Your task to perform on an android device: Open Reddit.com Image 0: 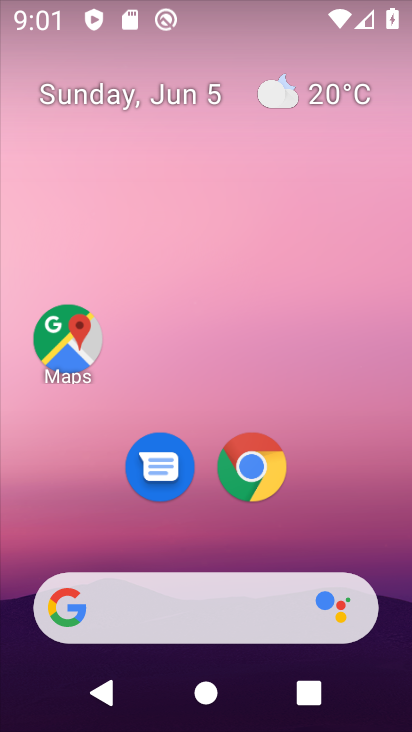
Step 0: click (251, 462)
Your task to perform on an android device: Open Reddit.com Image 1: 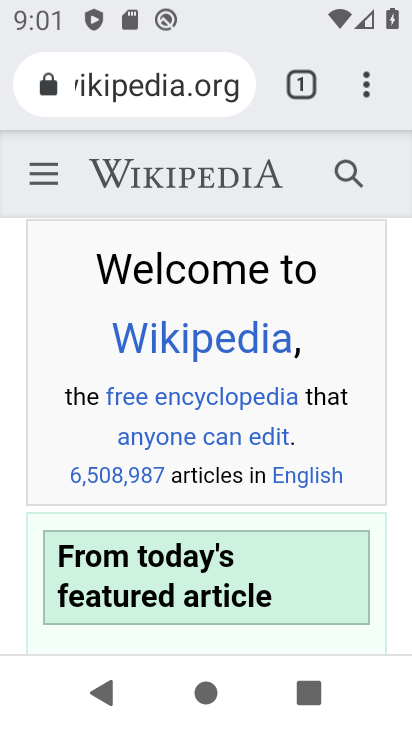
Step 1: click (367, 89)
Your task to perform on an android device: Open Reddit.com Image 2: 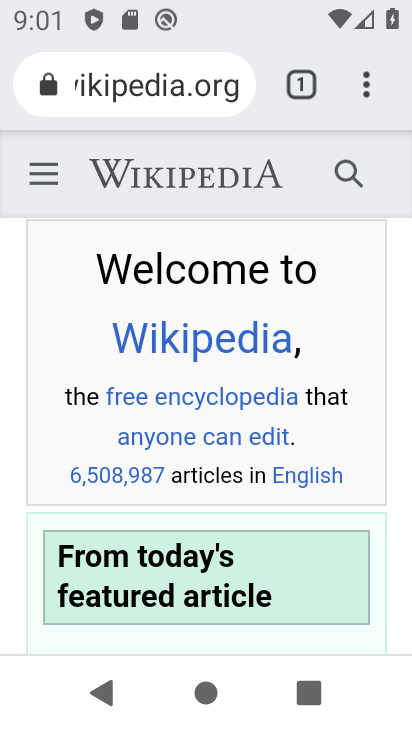
Step 2: click (203, 84)
Your task to perform on an android device: Open Reddit.com Image 3: 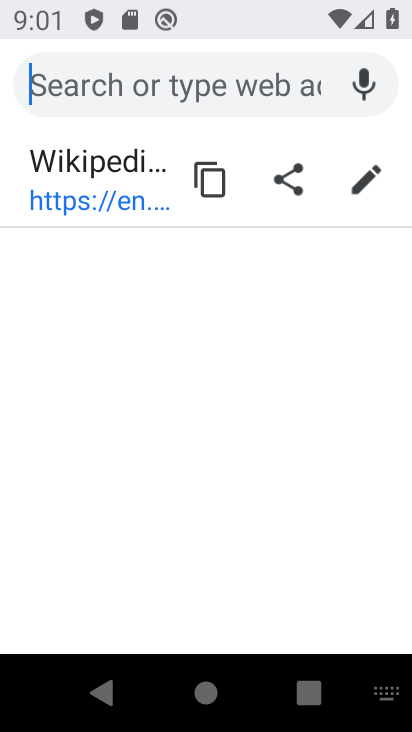
Step 3: type "Reddit.com"
Your task to perform on an android device: Open Reddit.com Image 4: 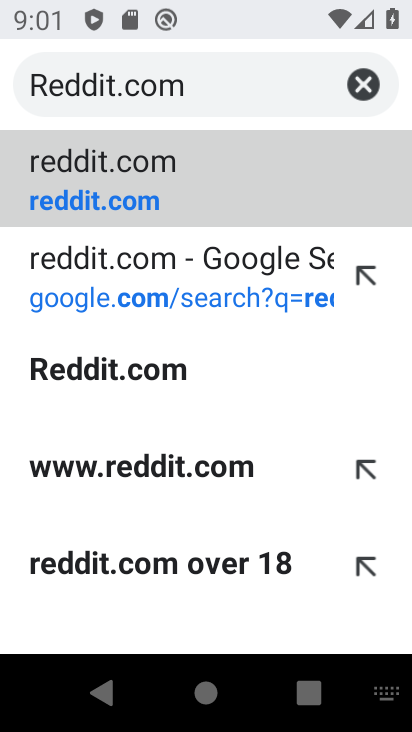
Step 4: click (78, 177)
Your task to perform on an android device: Open Reddit.com Image 5: 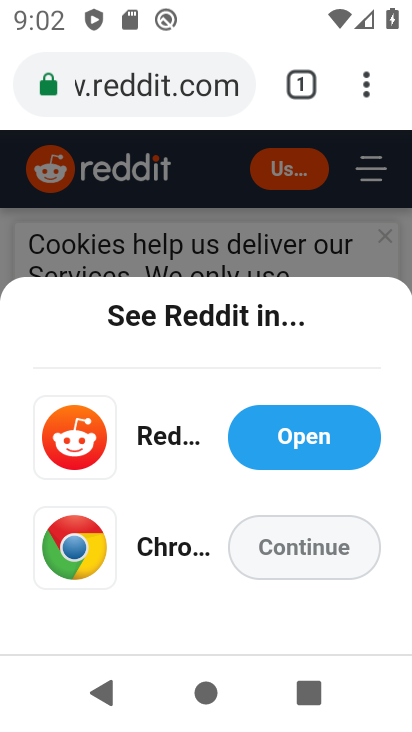
Step 5: task complete